Your task to perform on an android device: check the backup settings in the google photos Image 0: 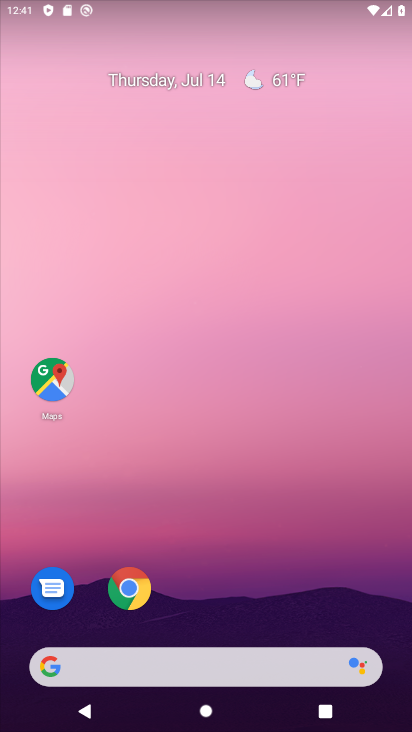
Step 0: drag from (250, 608) to (265, 180)
Your task to perform on an android device: check the backup settings in the google photos Image 1: 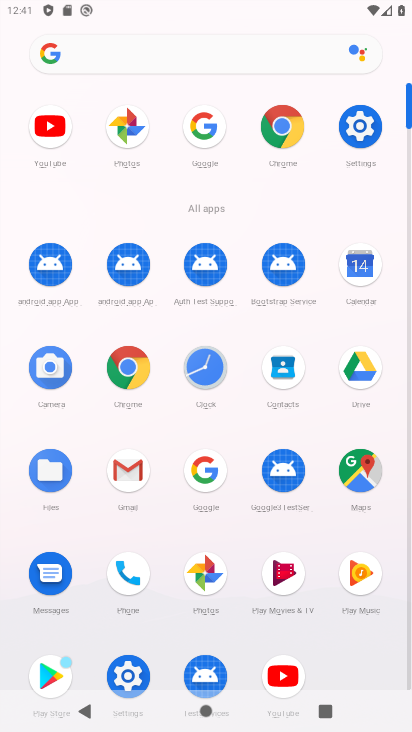
Step 1: click (210, 562)
Your task to perform on an android device: check the backup settings in the google photos Image 2: 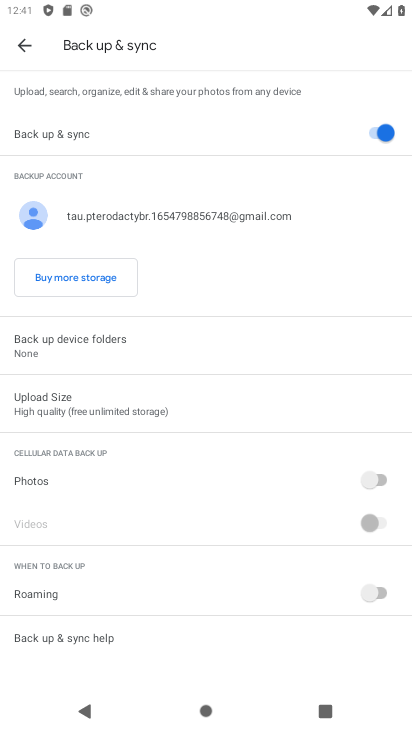
Step 2: click (81, 105)
Your task to perform on an android device: check the backup settings in the google photos Image 3: 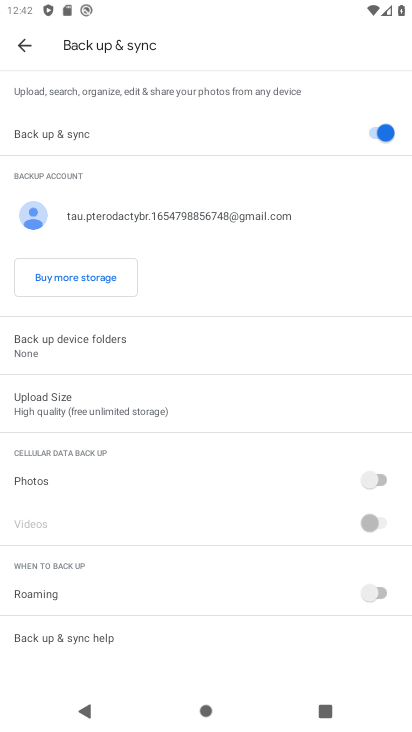
Step 3: task complete